Your task to perform on an android device: turn off picture-in-picture Image 0: 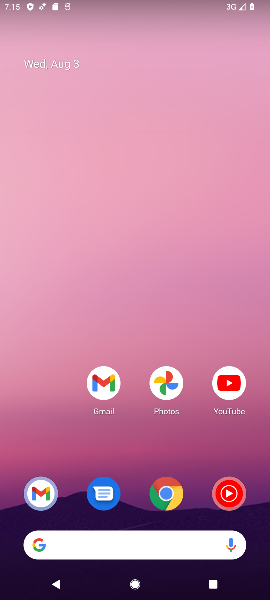
Step 0: click (154, 216)
Your task to perform on an android device: turn off picture-in-picture Image 1: 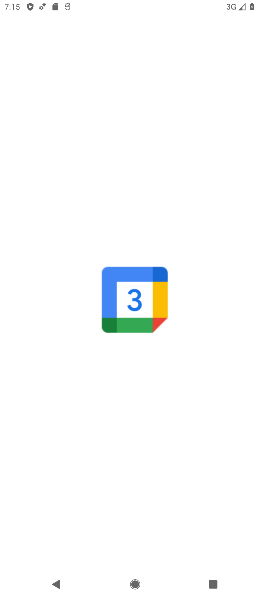
Step 1: press home button
Your task to perform on an android device: turn off picture-in-picture Image 2: 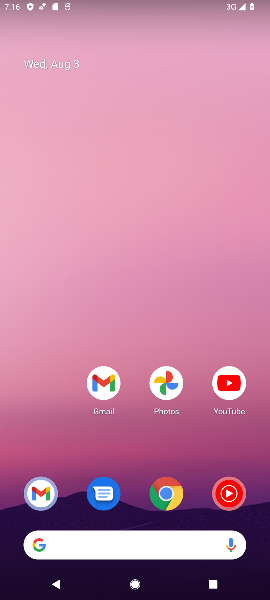
Step 2: drag from (121, 477) to (175, 134)
Your task to perform on an android device: turn off picture-in-picture Image 3: 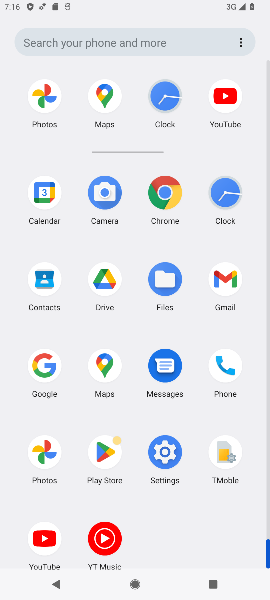
Step 3: click (168, 463)
Your task to perform on an android device: turn off picture-in-picture Image 4: 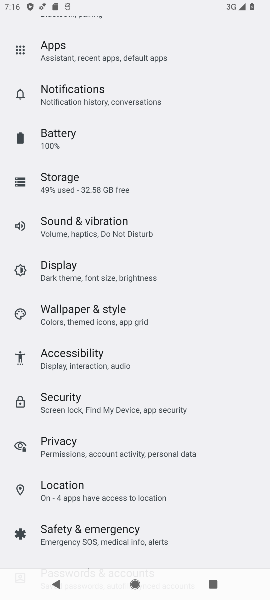
Step 4: drag from (90, 62) to (114, 491)
Your task to perform on an android device: turn off picture-in-picture Image 5: 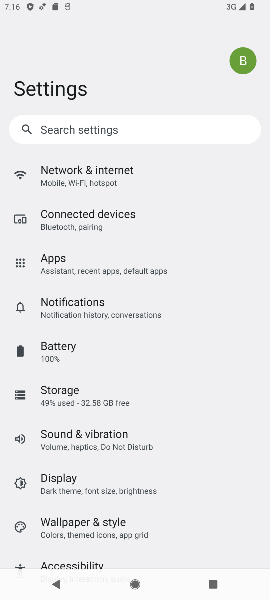
Step 5: click (106, 312)
Your task to perform on an android device: turn off picture-in-picture Image 6: 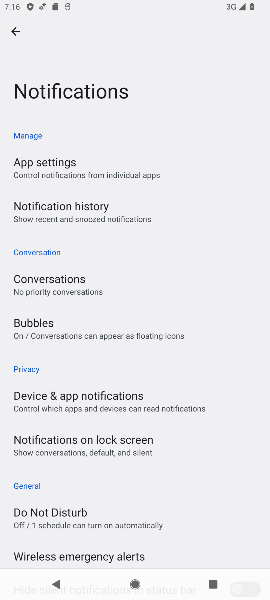
Step 6: drag from (119, 526) to (140, 320)
Your task to perform on an android device: turn off picture-in-picture Image 7: 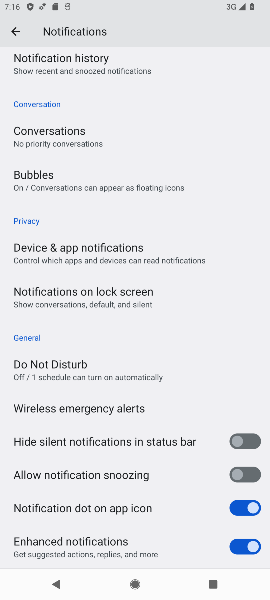
Step 7: click (118, 291)
Your task to perform on an android device: turn off picture-in-picture Image 8: 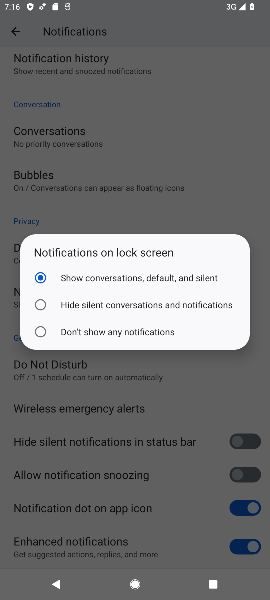
Step 8: click (144, 200)
Your task to perform on an android device: turn off picture-in-picture Image 9: 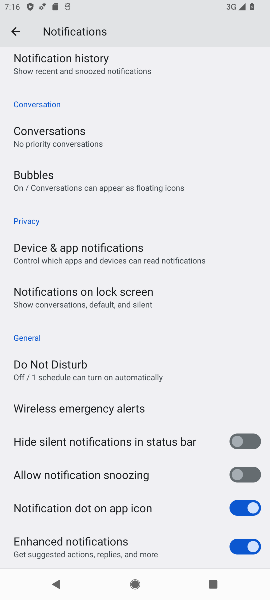
Step 9: drag from (124, 175) to (103, 436)
Your task to perform on an android device: turn off picture-in-picture Image 10: 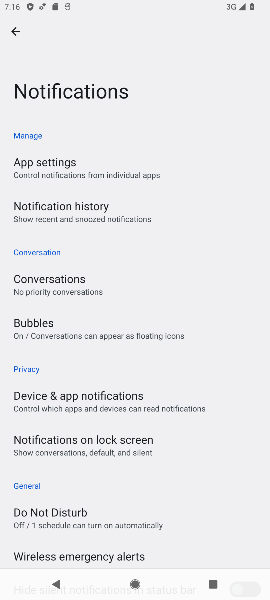
Step 10: click (79, 171)
Your task to perform on an android device: turn off picture-in-picture Image 11: 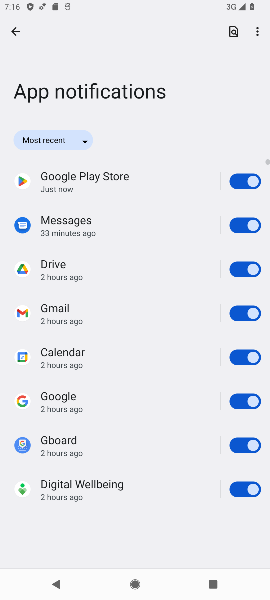
Step 11: drag from (123, 537) to (166, 110)
Your task to perform on an android device: turn off picture-in-picture Image 12: 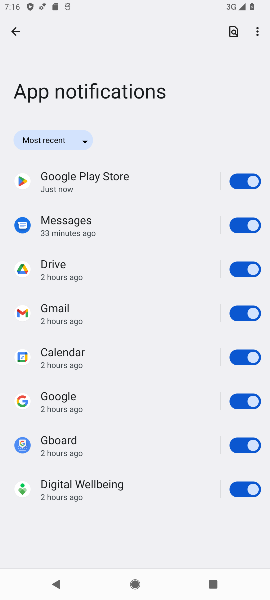
Step 12: click (10, 28)
Your task to perform on an android device: turn off picture-in-picture Image 13: 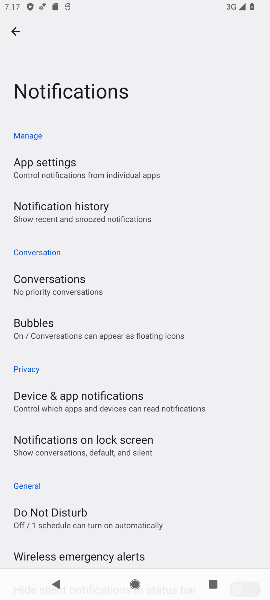
Step 13: drag from (121, 431) to (162, 131)
Your task to perform on an android device: turn off picture-in-picture Image 14: 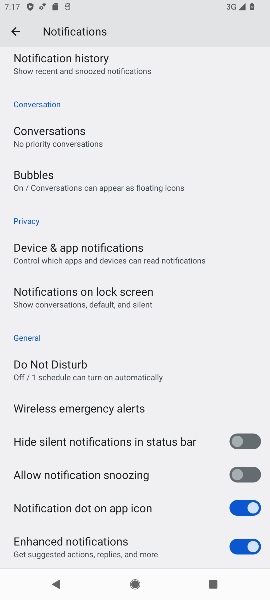
Step 14: click (10, 27)
Your task to perform on an android device: turn off picture-in-picture Image 15: 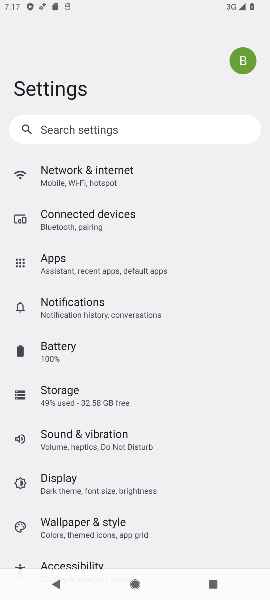
Step 15: click (100, 309)
Your task to perform on an android device: turn off picture-in-picture Image 16: 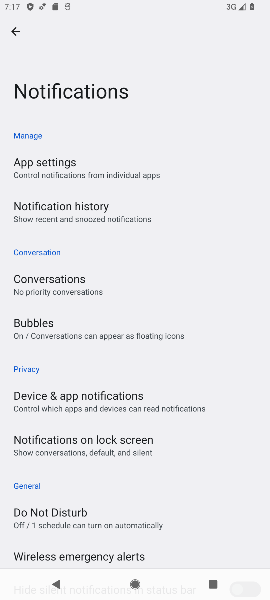
Step 16: drag from (133, 514) to (189, 163)
Your task to perform on an android device: turn off picture-in-picture Image 17: 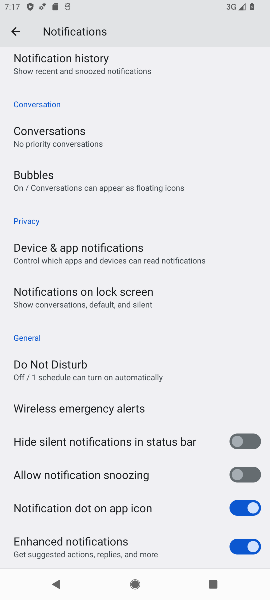
Step 17: click (12, 26)
Your task to perform on an android device: turn off picture-in-picture Image 18: 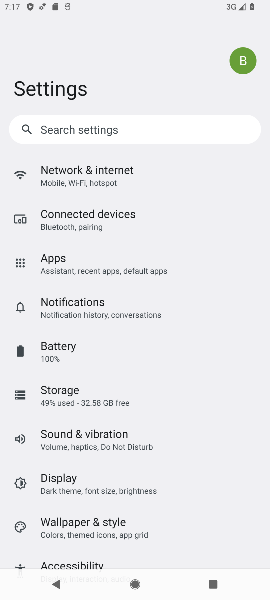
Step 18: click (100, 265)
Your task to perform on an android device: turn off picture-in-picture Image 19: 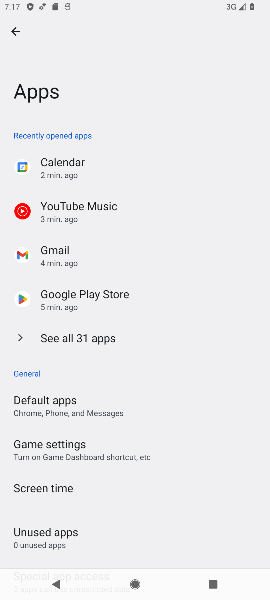
Step 19: drag from (89, 510) to (132, 212)
Your task to perform on an android device: turn off picture-in-picture Image 20: 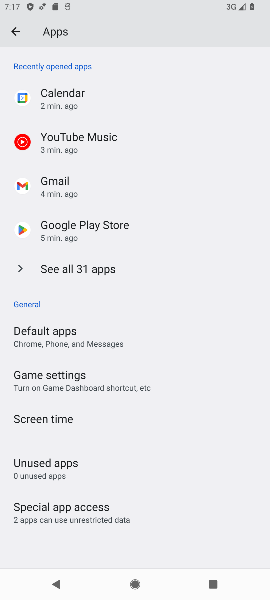
Step 20: click (62, 510)
Your task to perform on an android device: turn off picture-in-picture Image 21: 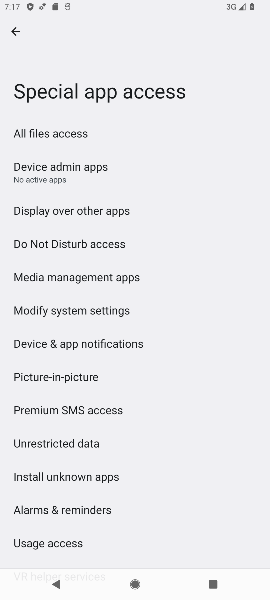
Step 21: click (43, 380)
Your task to perform on an android device: turn off picture-in-picture Image 22: 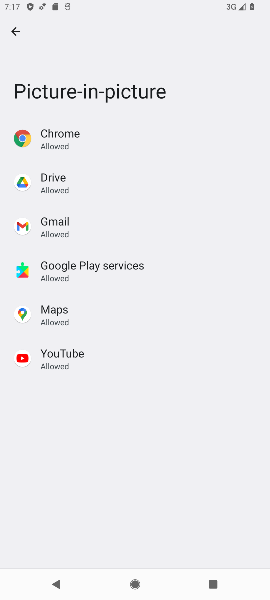
Step 22: click (61, 353)
Your task to perform on an android device: turn off picture-in-picture Image 23: 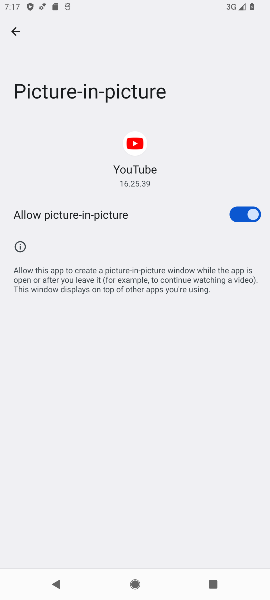
Step 23: click (243, 215)
Your task to perform on an android device: turn off picture-in-picture Image 24: 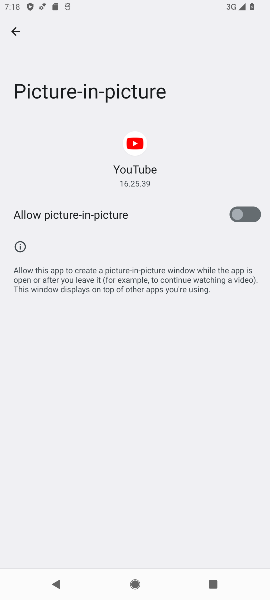
Step 24: task complete